Your task to perform on an android device: Open Maps and search for coffee Image 0: 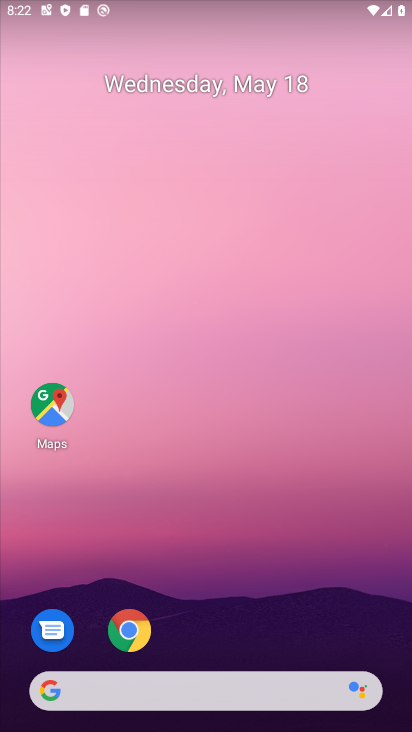
Step 0: click (50, 399)
Your task to perform on an android device: Open Maps and search for coffee Image 1: 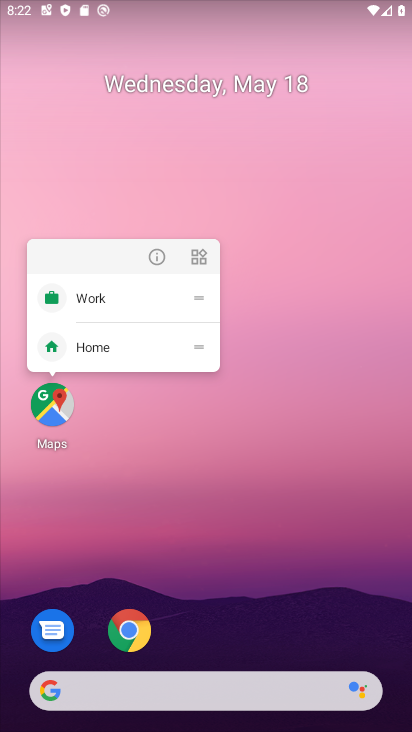
Step 1: click (57, 408)
Your task to perform on an android device: Open Maps and search for coffee Image 2: 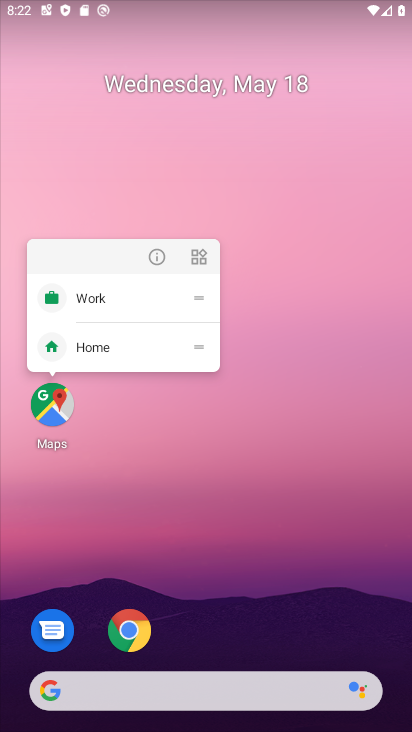
Step 2: click (52, 416)
Your task to perform on an android device: Open Maps and search for coffee Image 3: 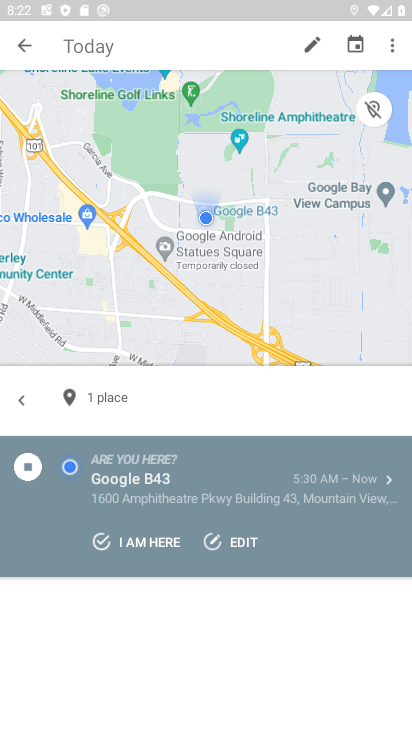
Step 3: click (22, 49)
Your task to perform on an android device: Open Maps and search for coffee Image 4: 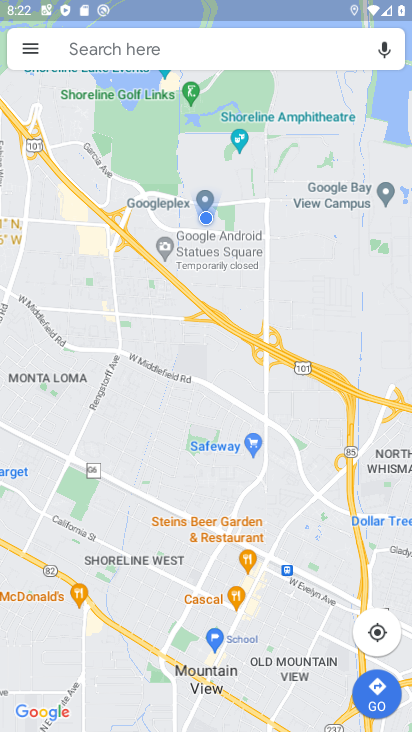
Step 4: click (140, 54)
Your task to perform on an android device: Open Maps and search for coffee Image 5: 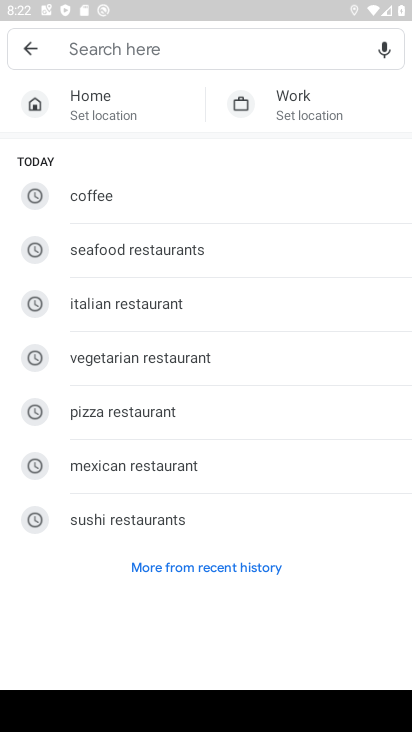
Step 5: click (89, 196)
Your task to perform on an android device: Open Maps and search for coffee Image 6: 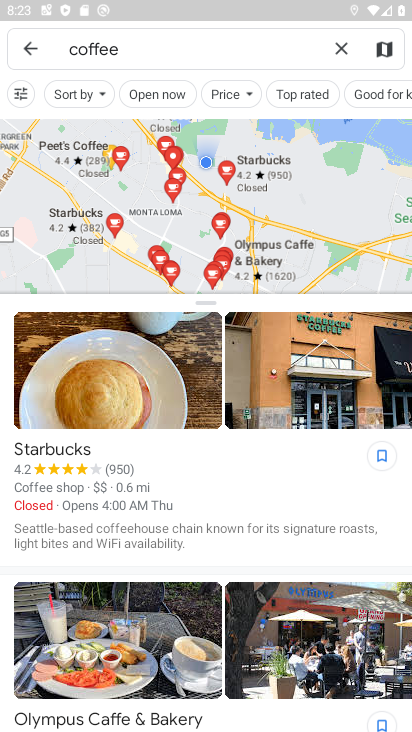
Step 6: task complete